Your task to perform on an android device: open chrome privacy settings Image 0: 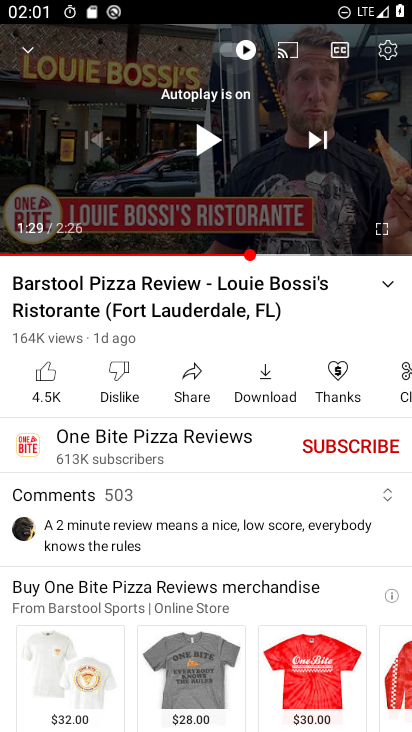
Step 0: press home button
Your task to perform on an android device: open chrome privacy settings Image 1: 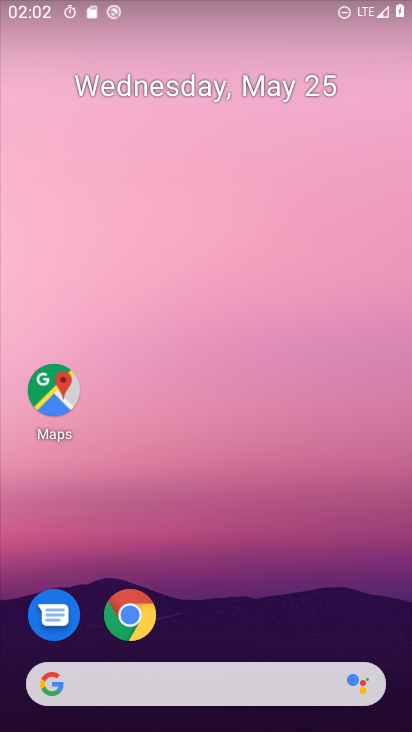
Step 1: drag from (311, 693) to (170, 216)
Your task to perform on an android device: open chrome privacy settings Image 2: 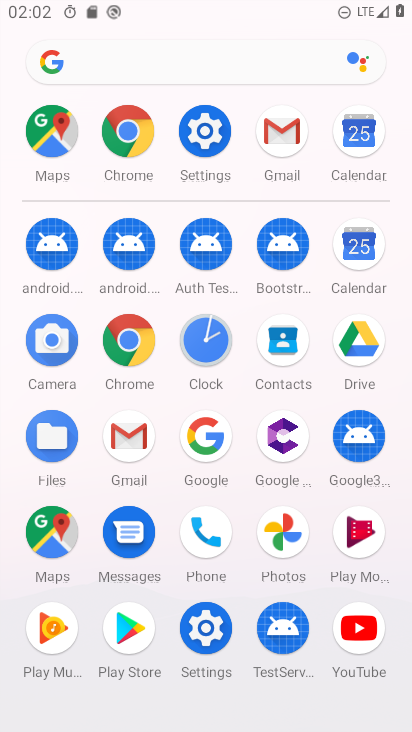
Step 2: click (131, 338)
Your task to perform on an android device: open chrome privacy settings Image 3: 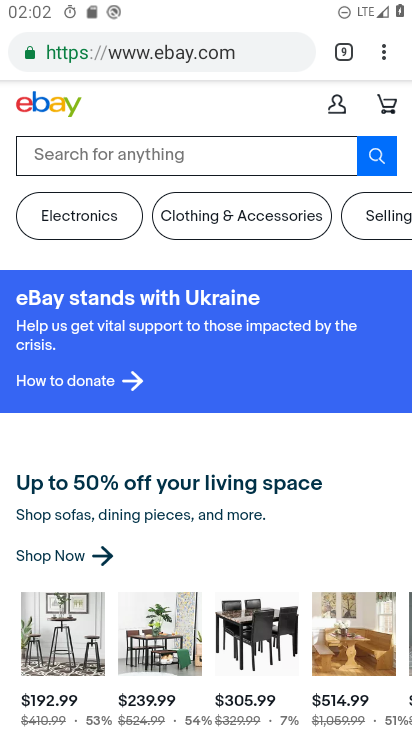
Step 3: click (387, 58)
Your task to perform on an android device: open chrome privacy settings Image 4: 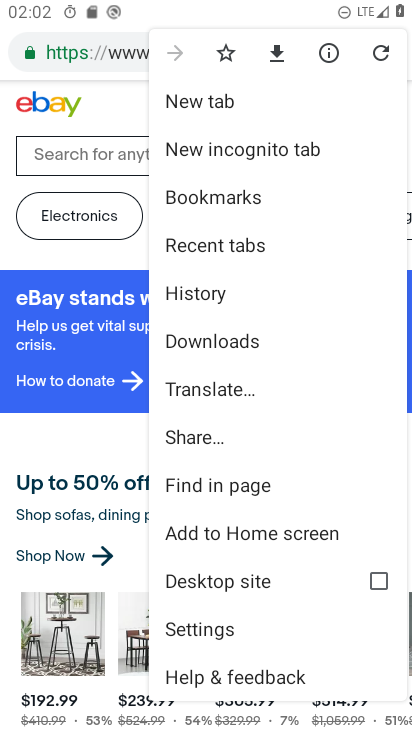
Step 4: click (209, 622)
Your task to perform on an android device: open chrome privacy settings Image 5: 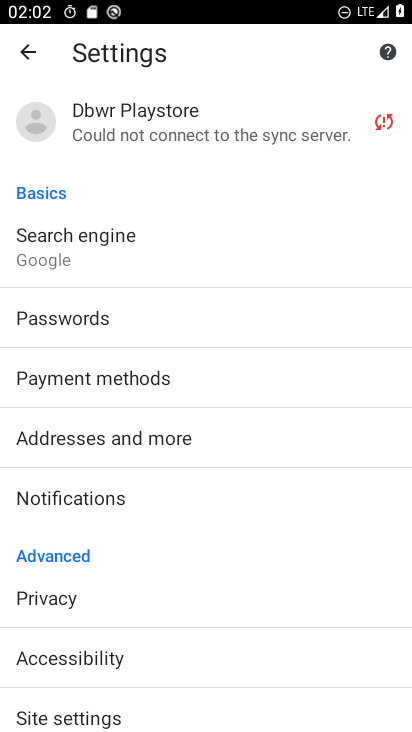
Step 5: click (69, 599)
Your task to perform on an android device: open chrome privacy settings Image 6: 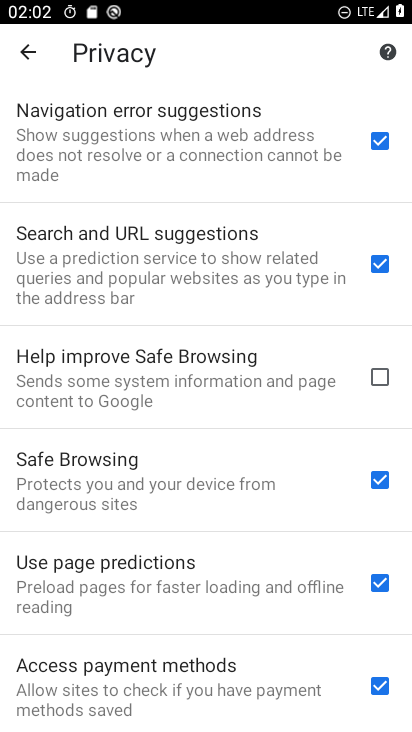
Step 6: task complete